Your task to perform on an android device: check out phone information Image 0: 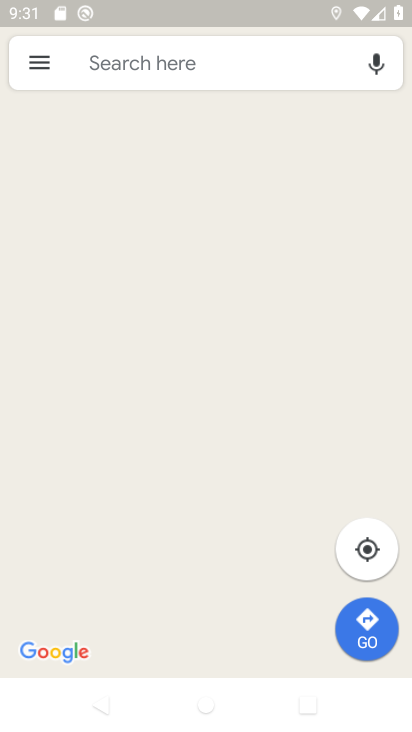
Step 0: press home button
Your task to perform on an android device: check out phone information Image 1: 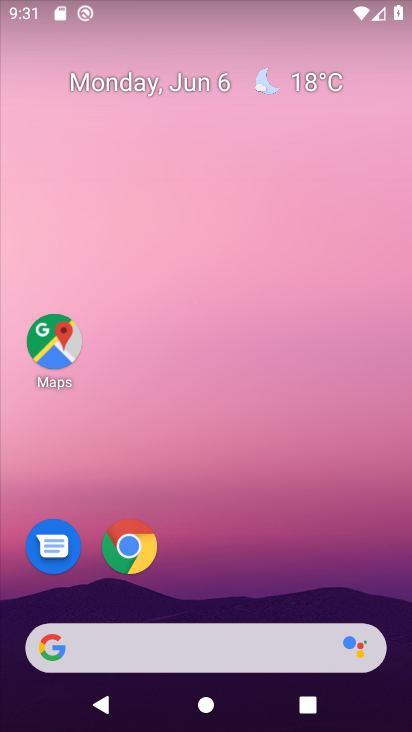
Step 1: drag from (373, 605) to (354, 160)
Your task to perform on an android device: check out phone information Image 2: 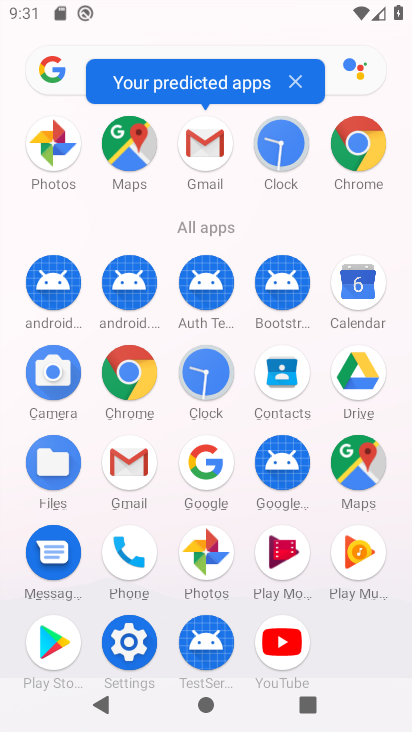
Step 2: click (128, 642)
Your task to perform on an android device: check out phone information Image 3: 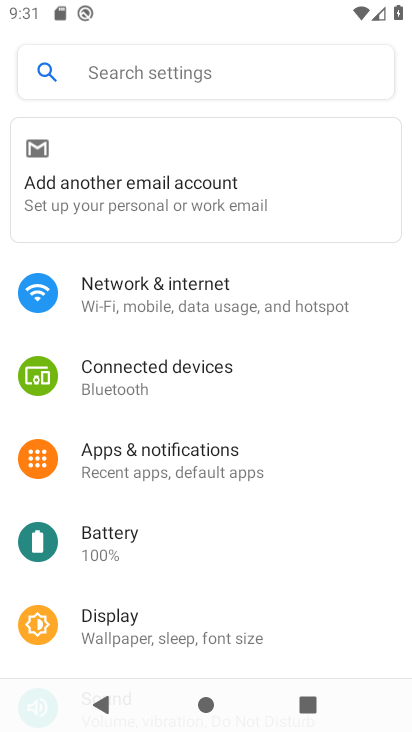
Step 3: drag from (318, 590) to (378, 240)
Your task to perform on an android device: check out phone information Image 4: 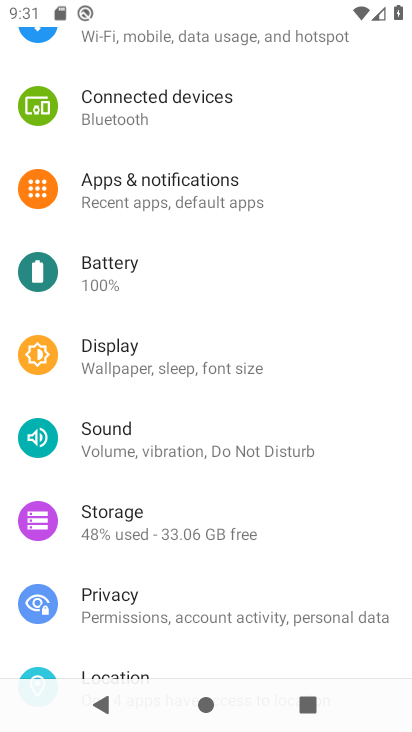
Step 4: drag from (341, 526) to (362, 163)
Your task to perform on an android device: check out phone information Image 5: 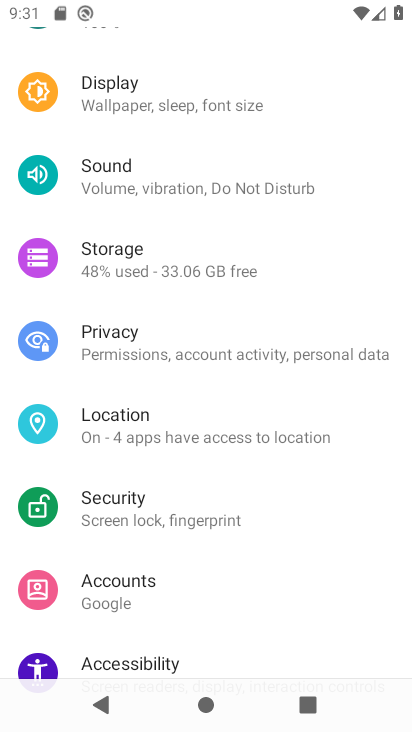
Step 5: drag from (312, 537) to (337, 180)
Your task to perform on an android device: check out phone information Image 6: 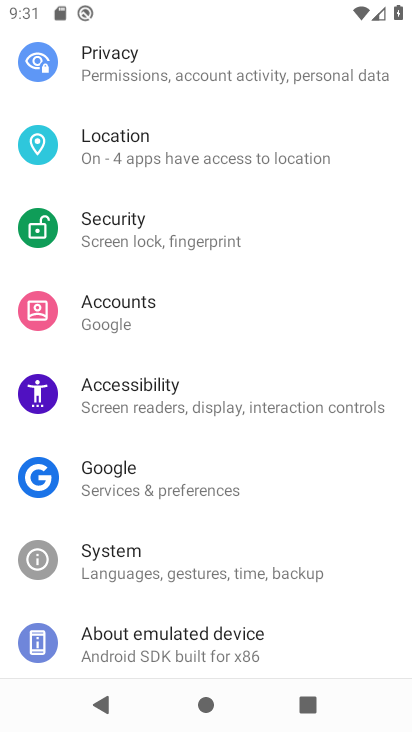
Step 6: drag from (347, 586) to (366, 326)
Your task to perform on an android device: check out phone information Image 7: 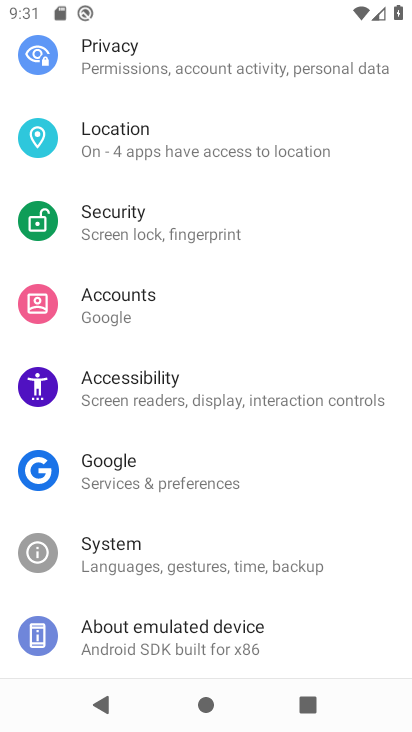
Step 7: click (120, 641)
Your task to perform on an android device: check out phone information Image 8: 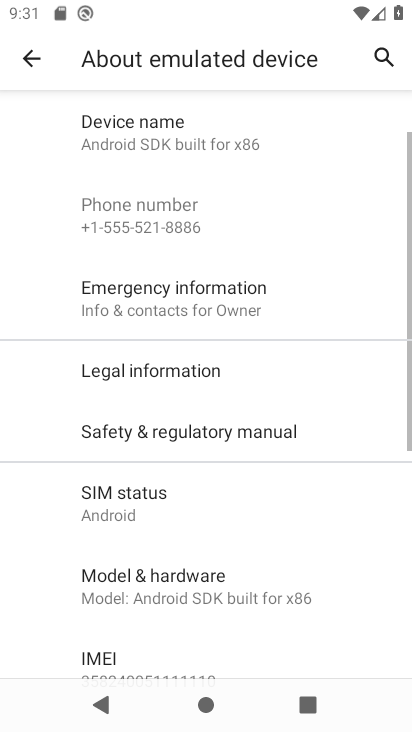
Step 8: task complete